Your task to perform on an android device: turn vacation reply on in the gmail app Image 0: 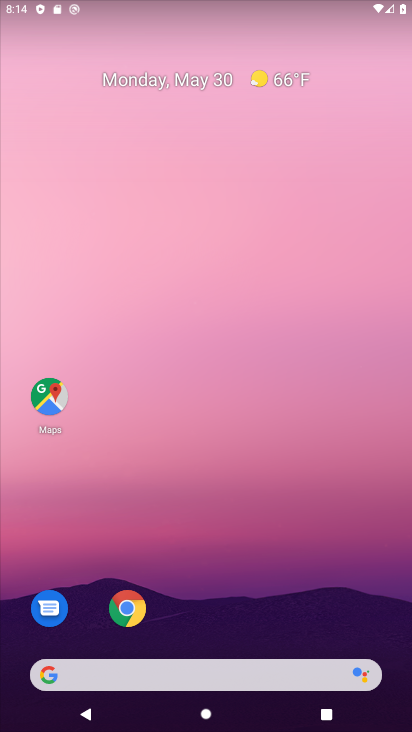
Step 0: drag from (236, 664) to (236, 34)
Your task to perform on an android device: turn vacation reply on in the gmail app Image 1: 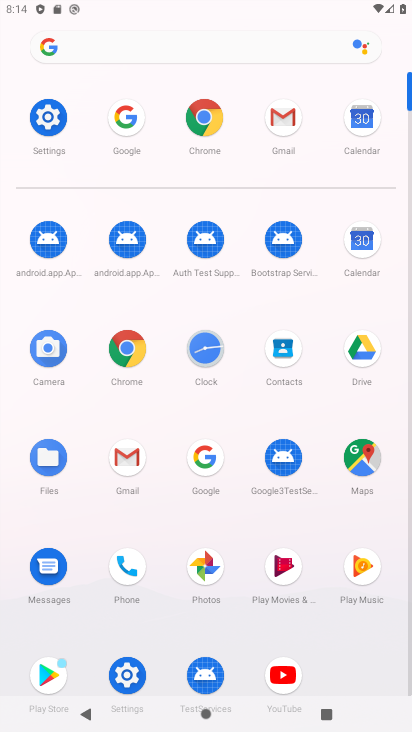
Step 1: click (123, 458)
Your task to perform on an android device: turn vacation reply on in the gmail app Image 2: 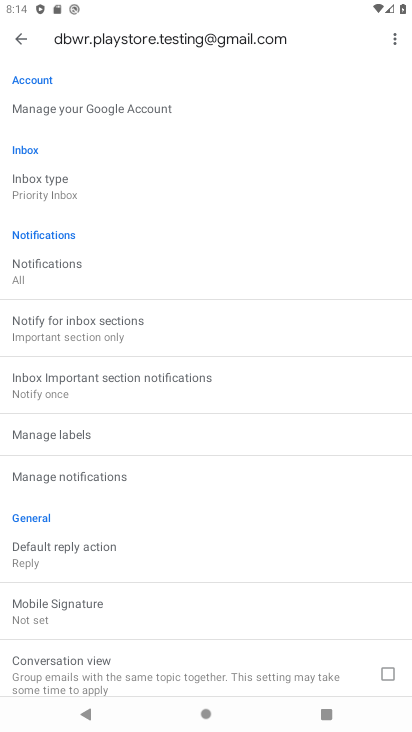
Step 2: drag from (120, 660) to (115, 189)
Your task to perform on an android device: turn vacation reply on in the gmail app Image 3: 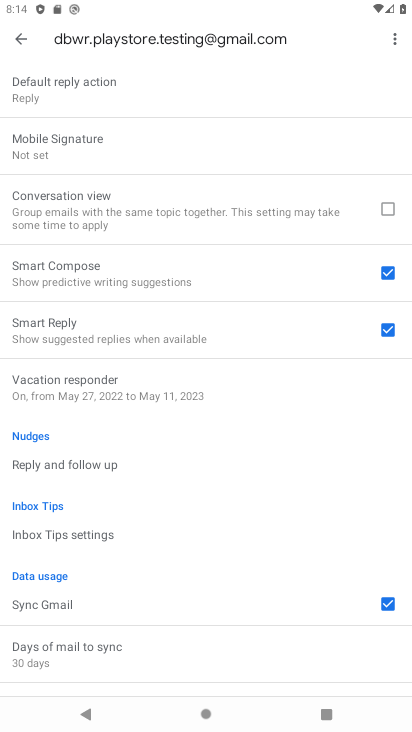
Step 3: click (93, 389)
Your task to perform on an android device: turn vacation reply on in the gmail app Image 4: 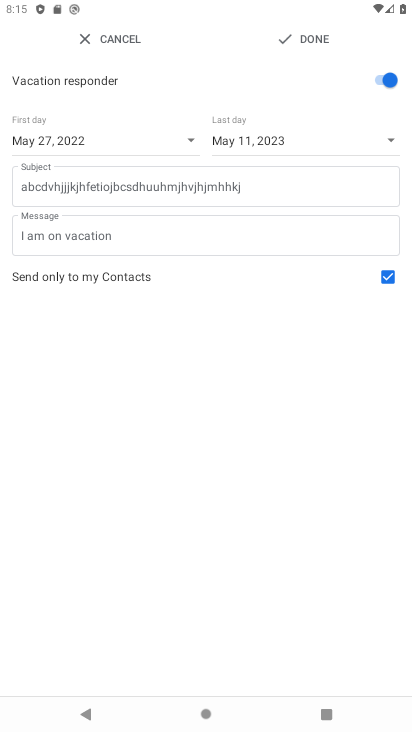
Step 4: task complete